Your task to perform on an android device: turn off translation in the chrome app Image 0: 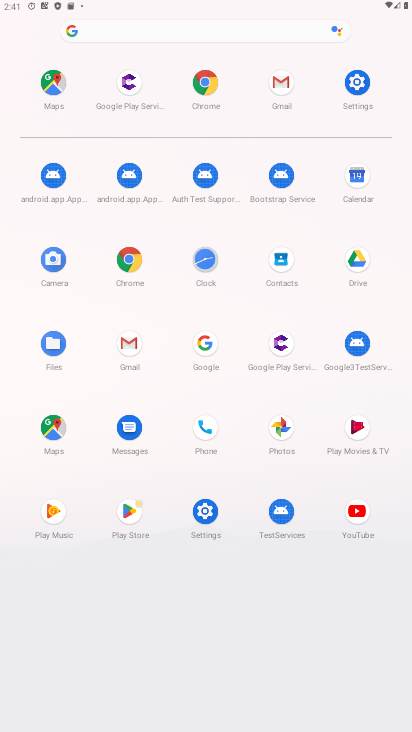
Step 0: press home button
Your task to perform on an android device: turn off translation in the chrome app Image 1: 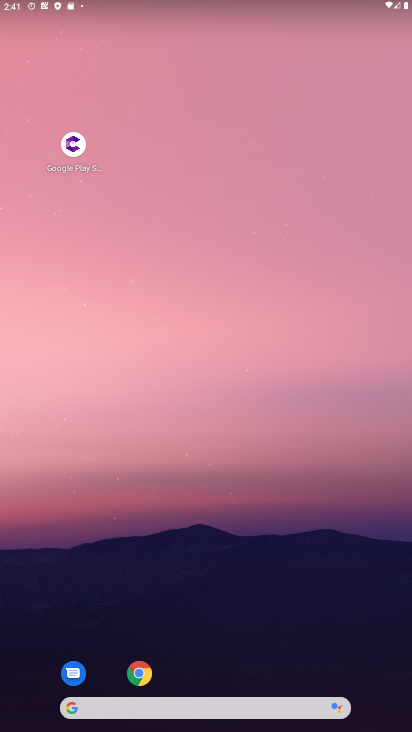
Step 1: drag from (227, 656) to (160, 5)
Your task to perform on an android device: turn off translation in the chrome app Image 2: 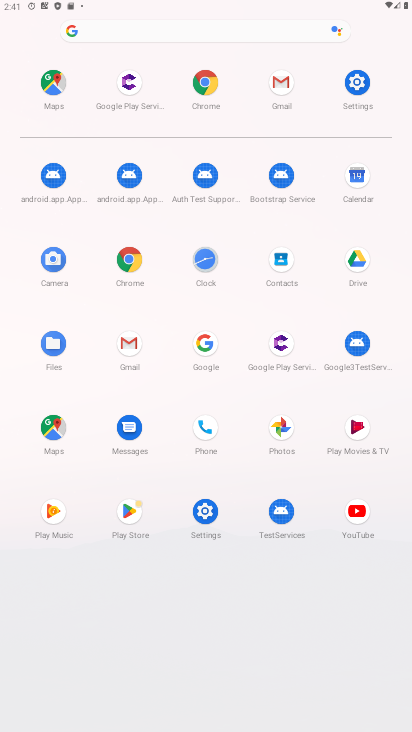
Step 2: click (134, 269)
Your task to perform on an android device: turn off translation in the chrome app Image 3: 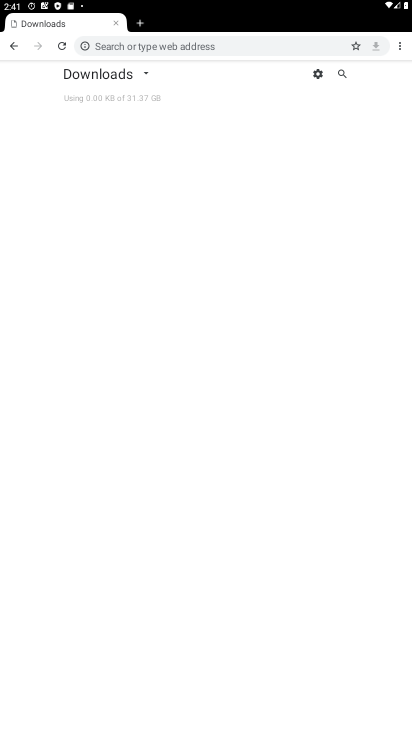
Step 3: click (399, 47)
Your task to perform on an android device: turn off translation in the chrome app Image 4: 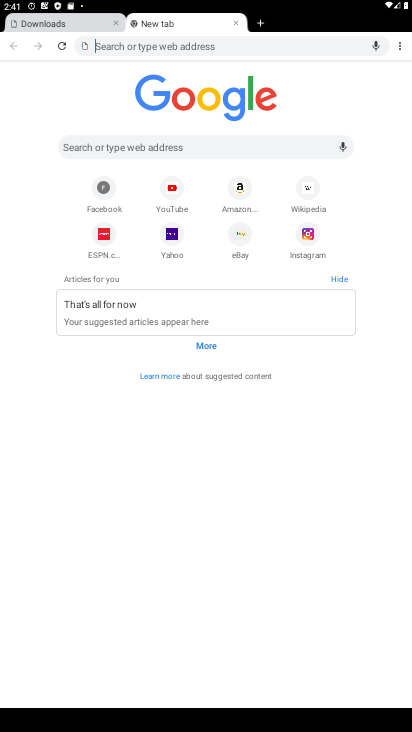
Step 4: click (402, 48)
Your task to perform on an android device: turn off translation in the chrome app Image 5: 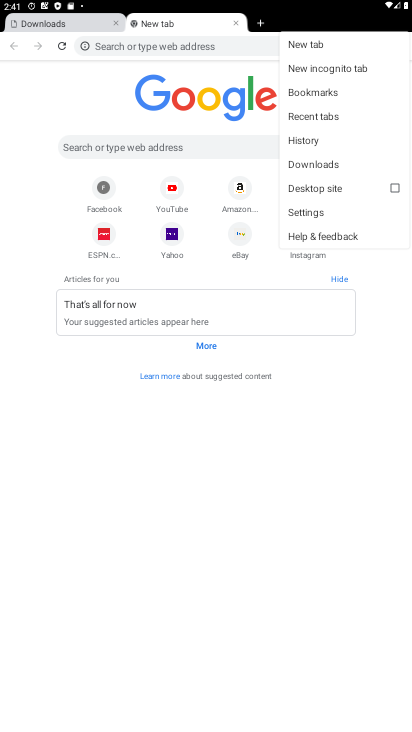
Step 5: click (314, 217)
Your task to perform on an android device: turn off translation in the chrome app Image 6: 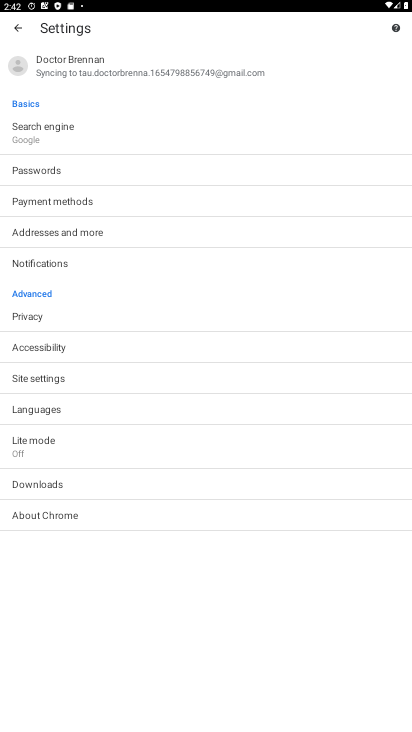
Step 6: click (46, 407)
Your task to perform on an android device: turn off translation in the chrome app Image 7: 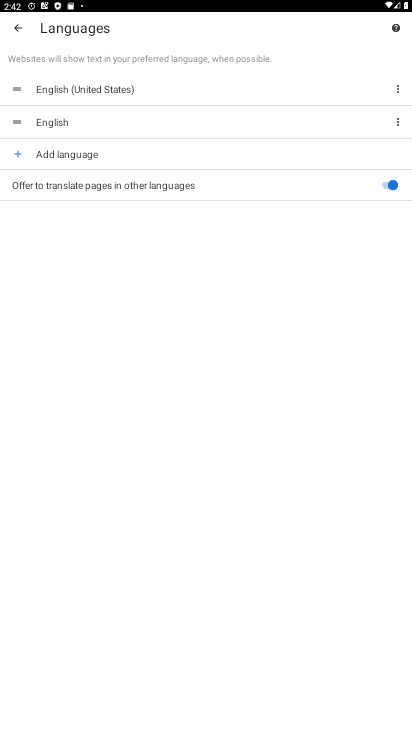
Step 7: click (355, 185)
Your task to perform on an android device: turn off translation in the chrome app Image 8: 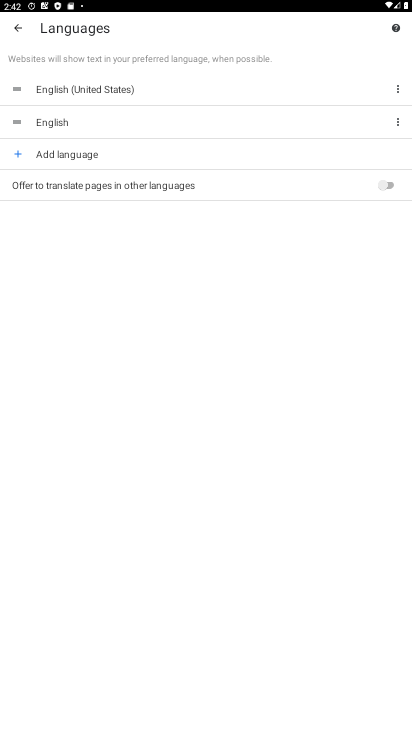
Step 8: task complete